Your task to perform on an android device: When is my next meeting? Image 0: 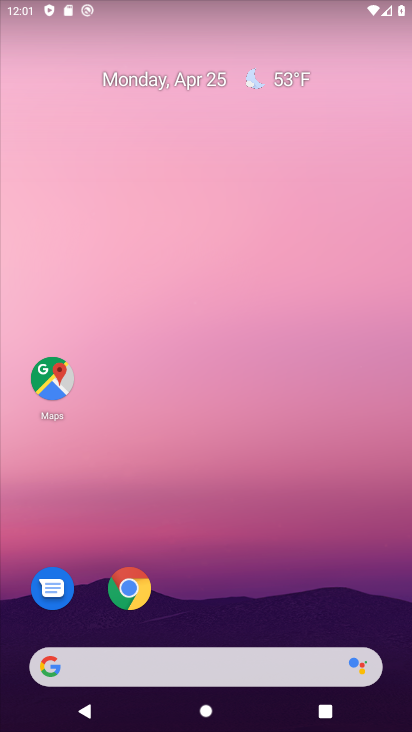
Step 0: drag from (252, 614) to (248, 318)
Your task to perform on an android device: When is my next meeting? Image 1: 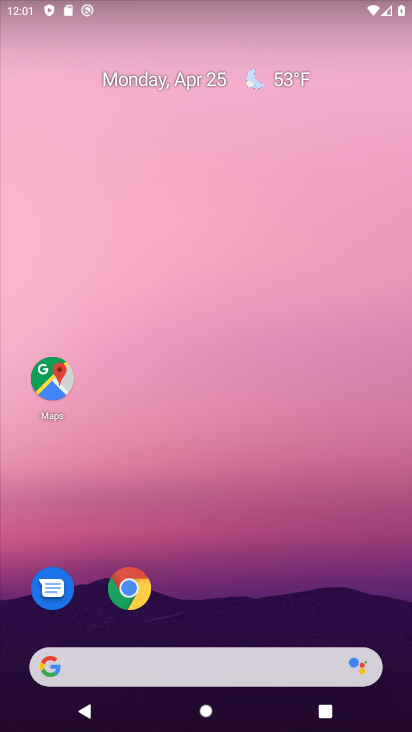
Step 1: drag from (238, 623) to (185, 188)
Your task to perform on an android device: When is my next meeting? Image 2: 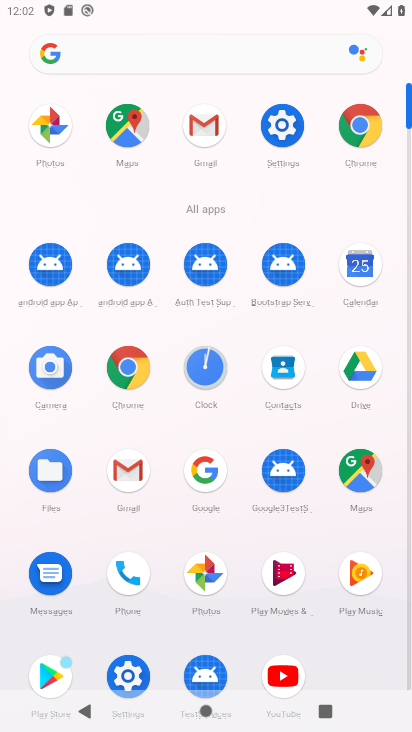
Step 2: click (362, 283)
Your task to perform on an android device: When is my next meeting? Image 3: 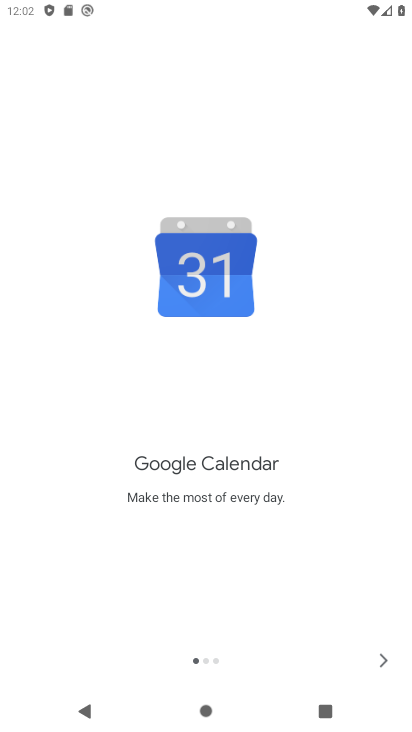
Step 3: click (381, 663)
Your task to perform on an android device: When is my next meeting? Image 4: 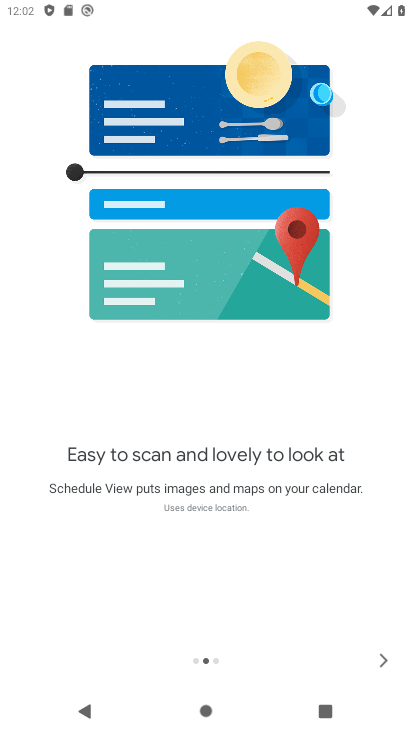
Step 4: click (381, 663)
Your task to perform on an android device: When is my next meeting? Image 5: 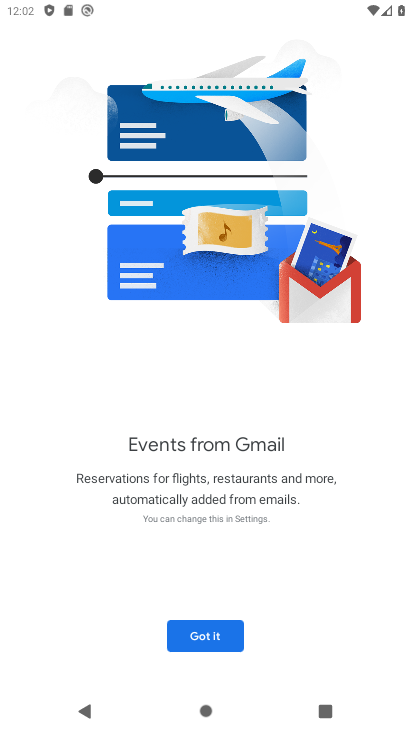
Step 5: click (381, 663)
Your task to perform on an android device: When is my next meeting? Image 6: 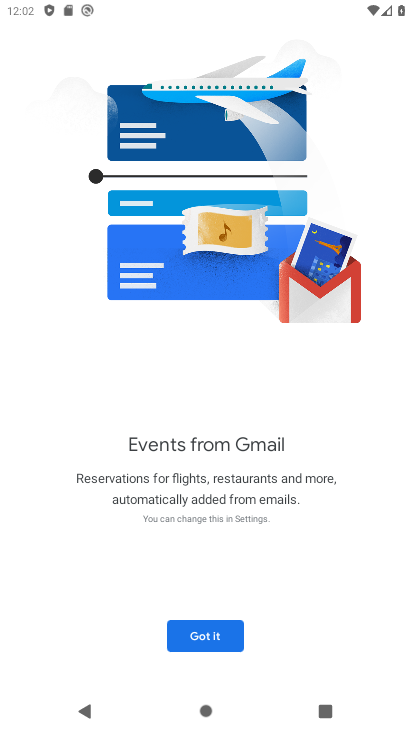
Step 6: click (211, 641)
Your task to perform on an android device: When is my next meeting? Image 7: 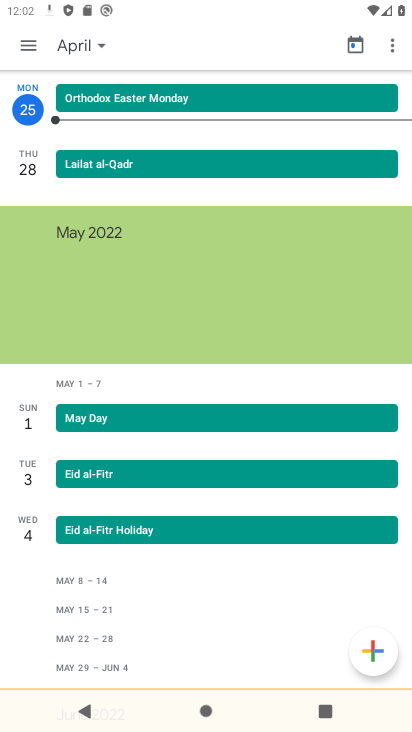
Step 7: click (21, 56)
Your task to perform on an android device: When is my next meeting? Image 8: 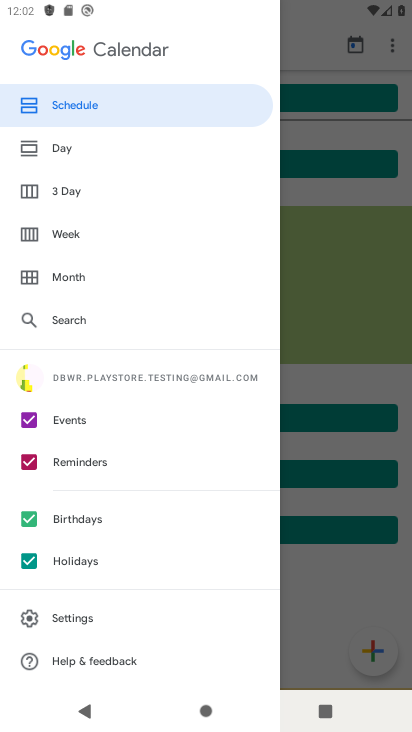
Step 8: click (71, 152)
Your task to perform on an android device: When is my next meeting? Image 9: 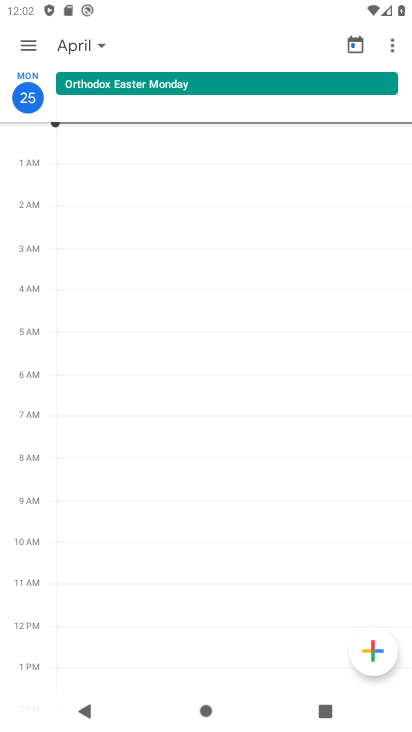
Step 9: click (19, 48)
Your task to perform on an android device: When is my next meeting? Image 10: 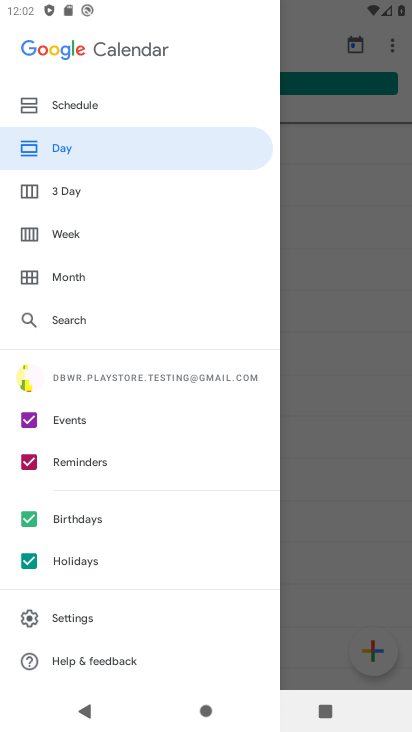
Step 10: click (55, 86)
Your task to perform on an android device: When is my next meeting? Image 11: 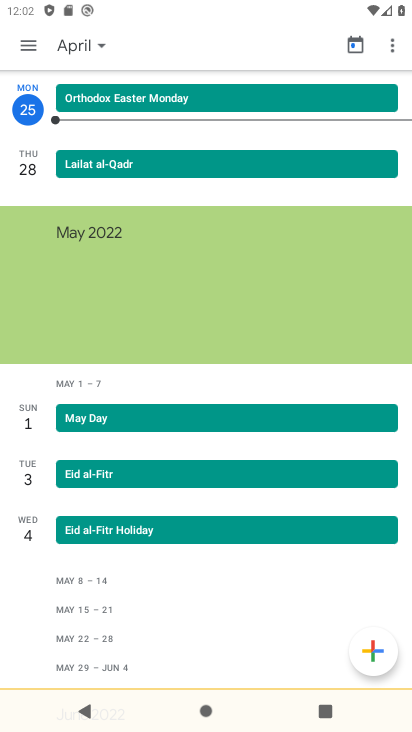
Step 11: task complete